Your task to perform on an android device: open app "Airtel Thanks" Image 0: 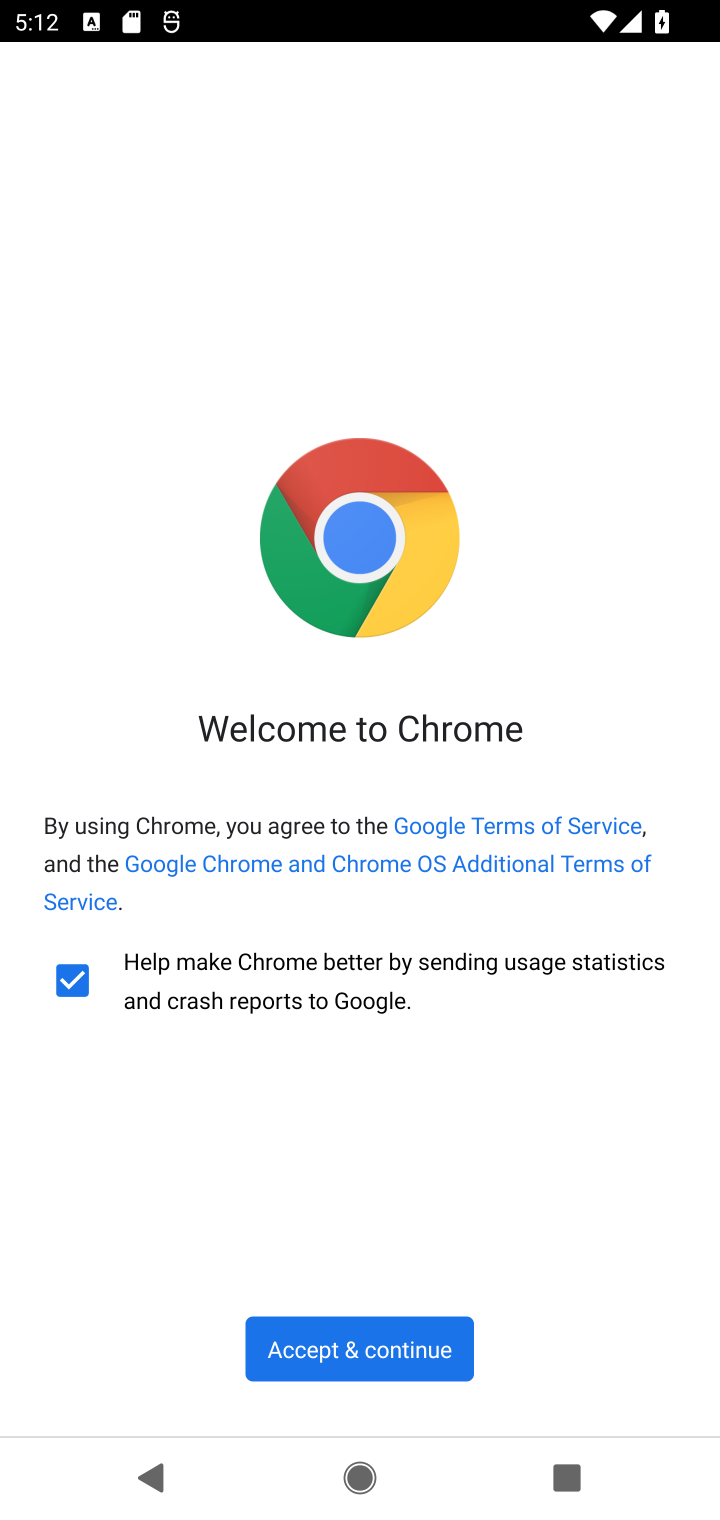
Step 0: press home button
Your task to perform on an android device: open app "Airtel Thanks" Image 1: 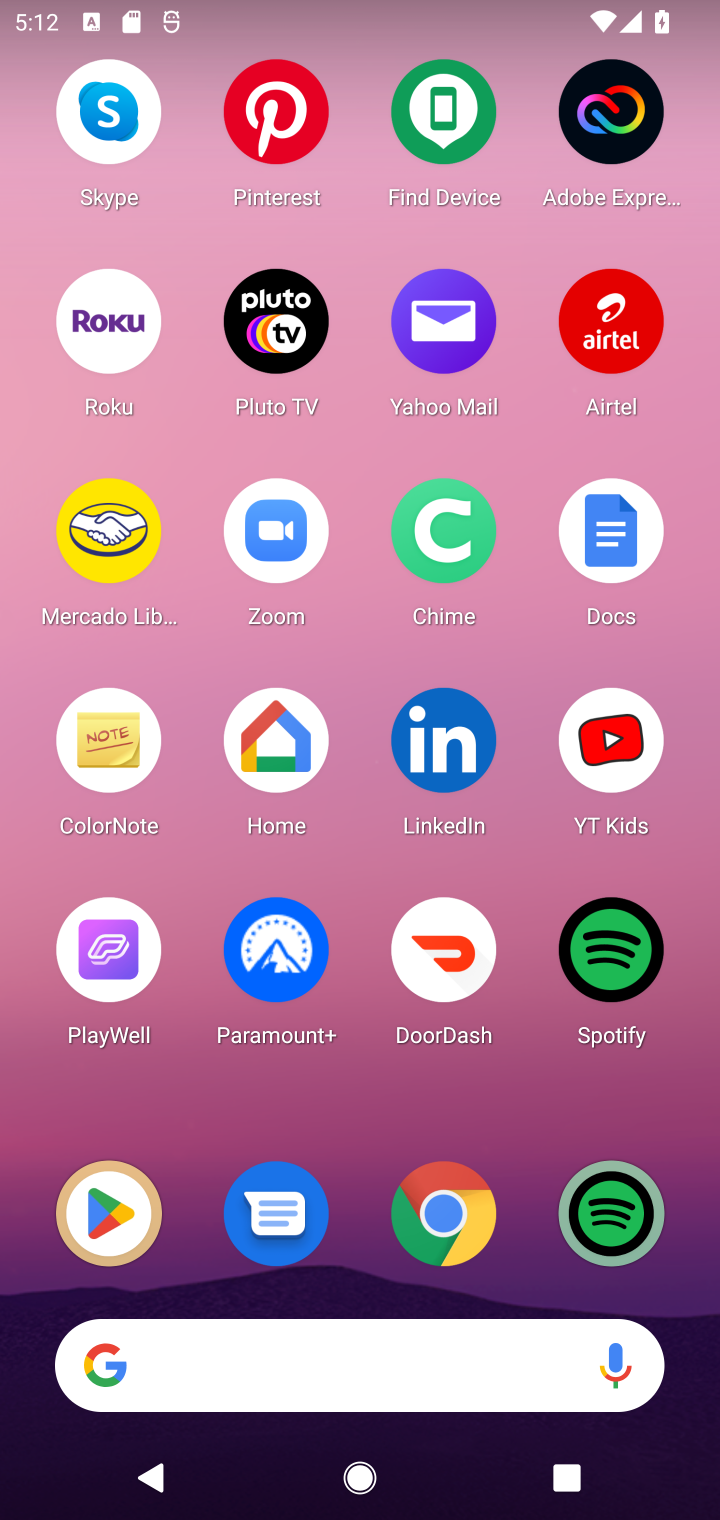
Step 1: drag from (561, 1104) to (519, 8)
Your task to perform on an android device: open app "Airtel Thanks" Image 2: 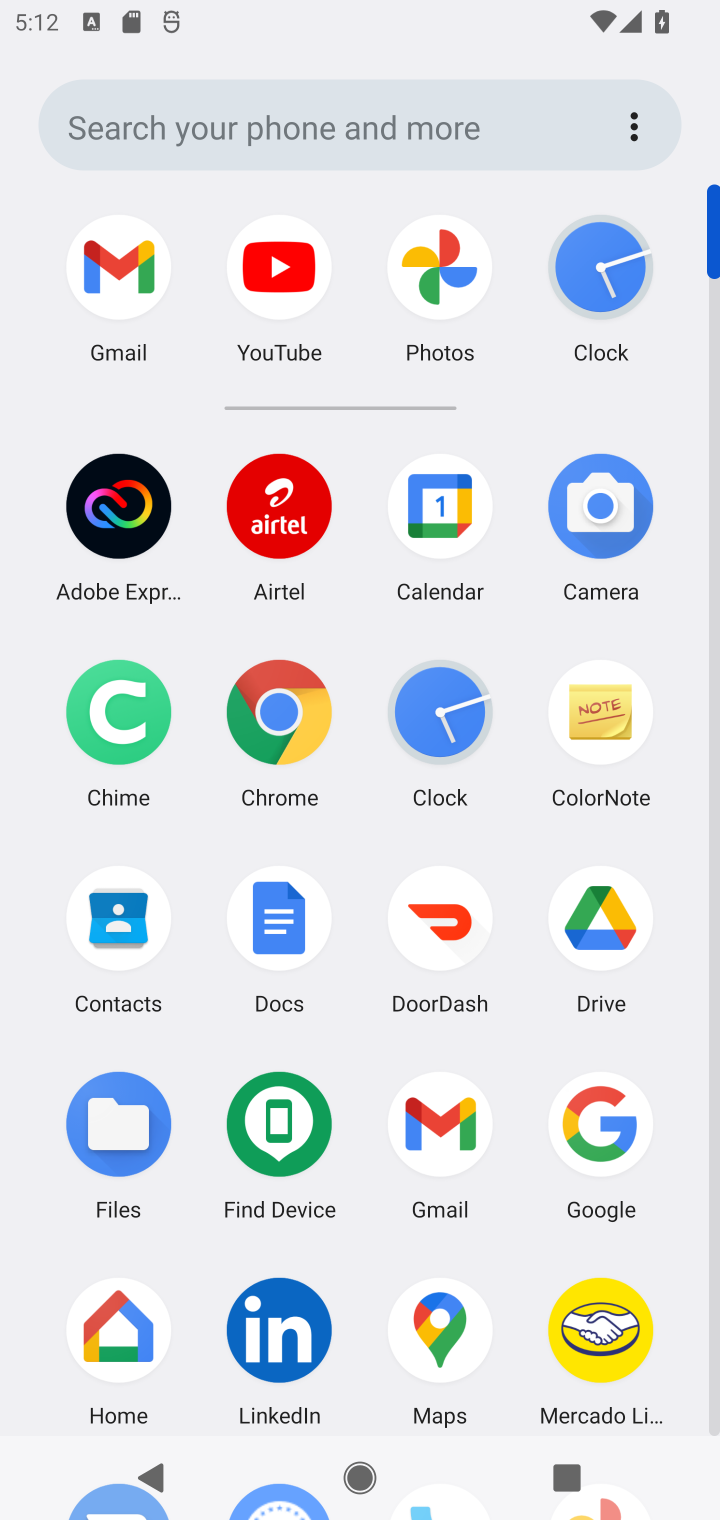
Step 2: drag from (357, 1235) to (412, 598)
Your task to perform on an android device: open app "Airtel Thanks" Image 3: 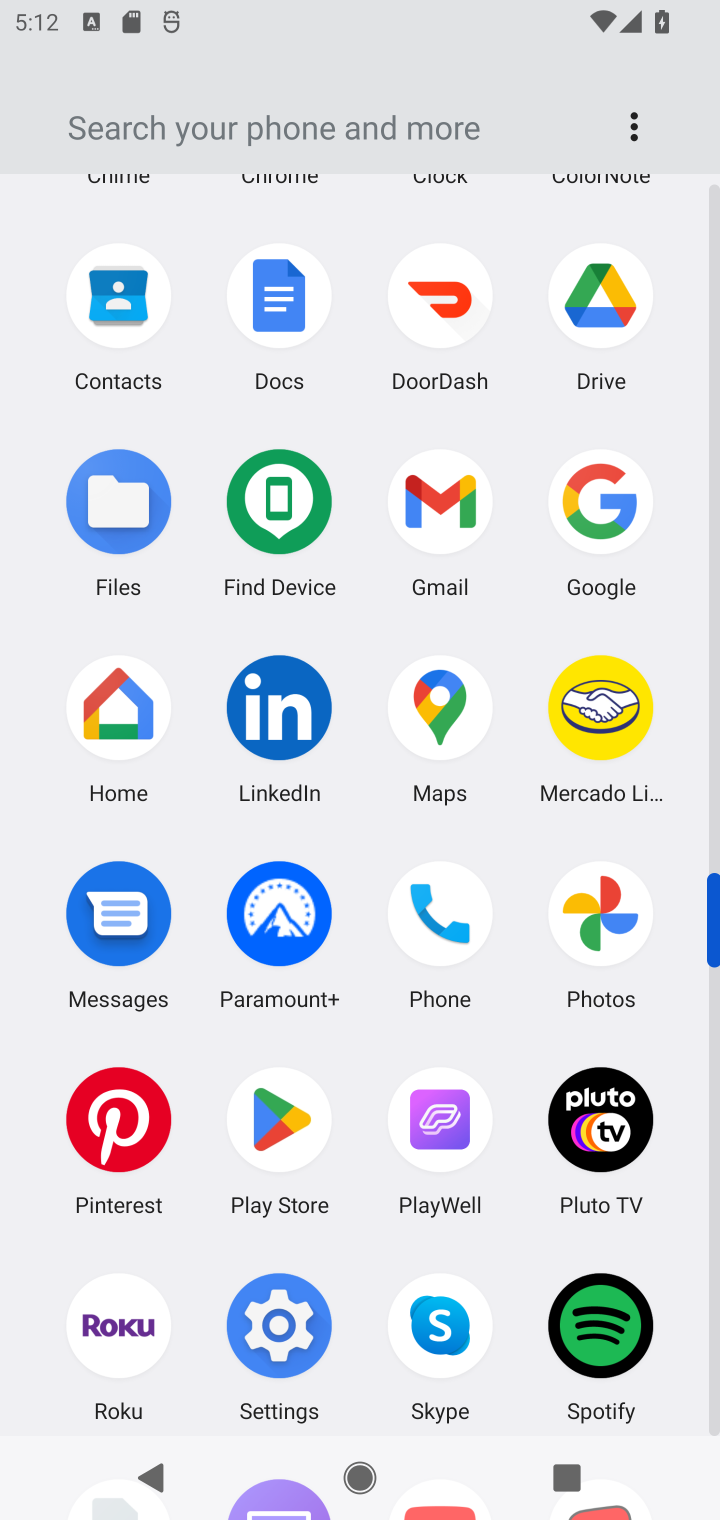
Step 3: click (312, 1163)
Your task to perform on an android device: open app "Airtel Thanks" Image 4: 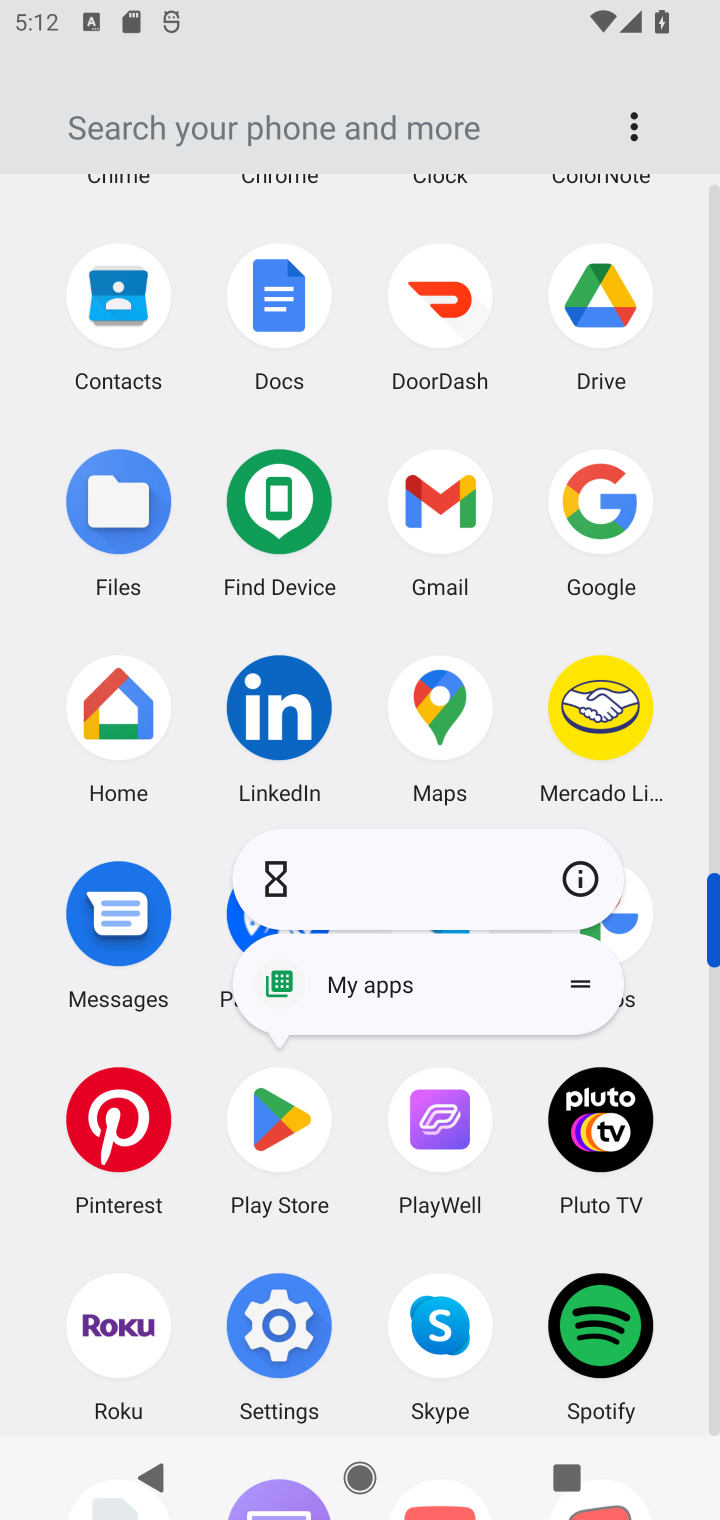
Step 4: click (277, 1114)
Your task to perform on an android device: open app "Airtel Thanks" Image 5: 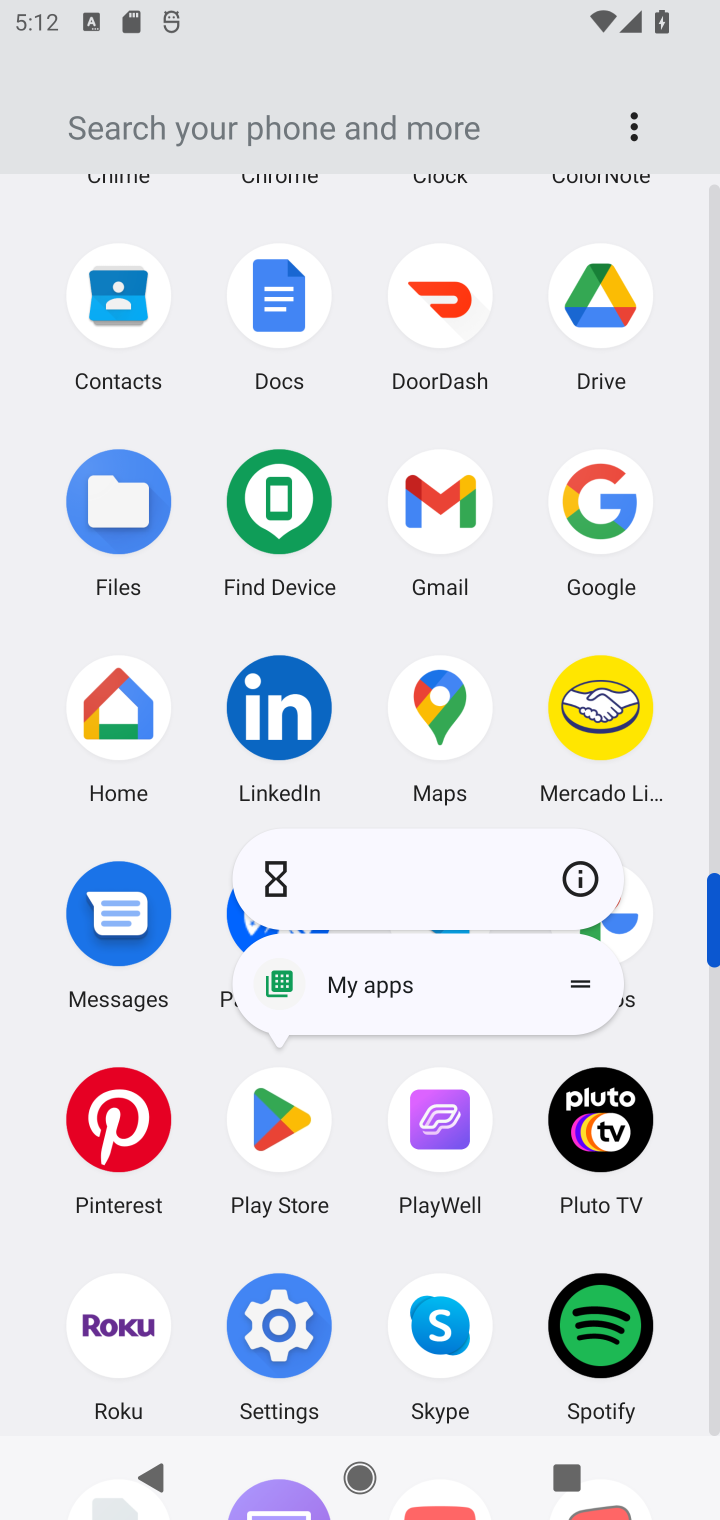
Step 5: click (277, 1128)
Your task to perform on an android device: open app "Airtel Thanks" Image 6: 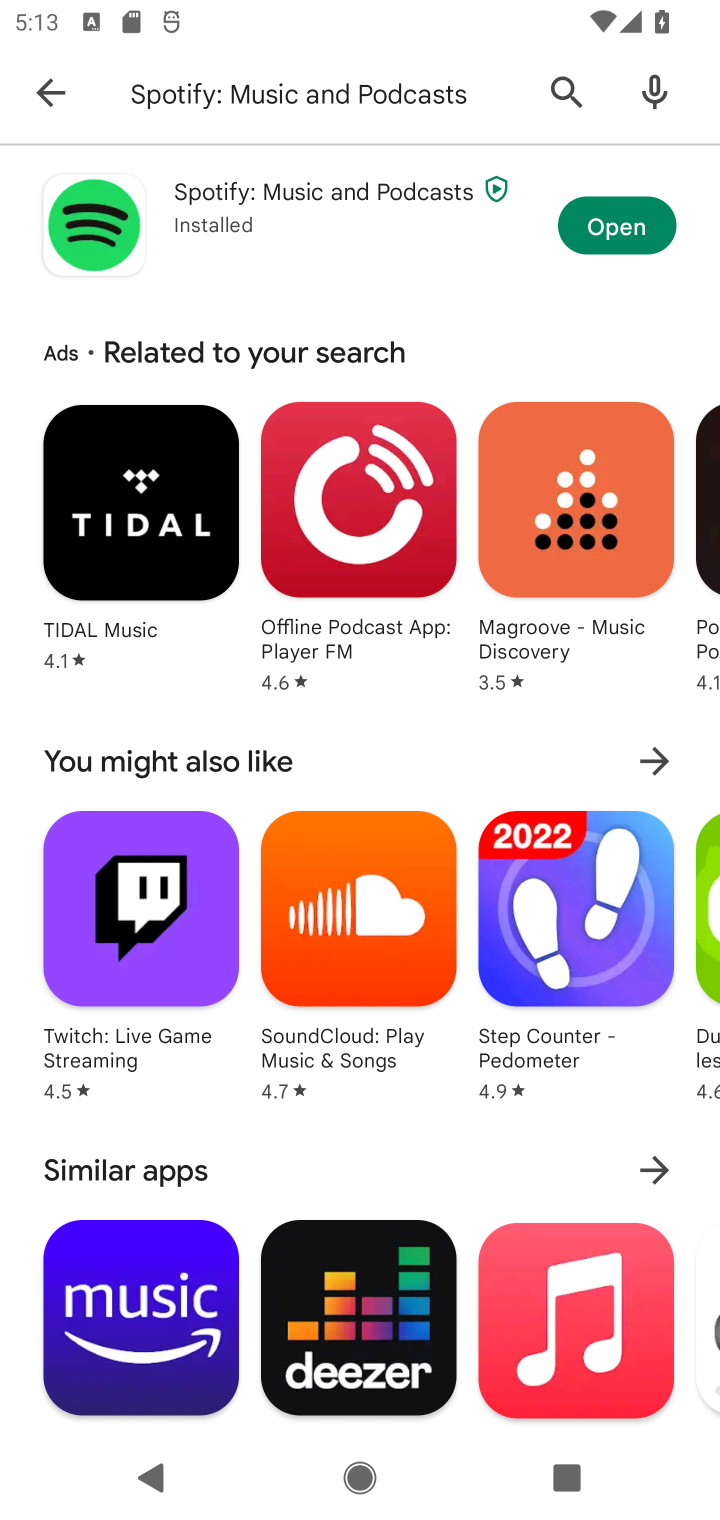
Step 6: click (453, 83)
Your task to perform on an android device: open app "Airtel Thanks" Image 7: 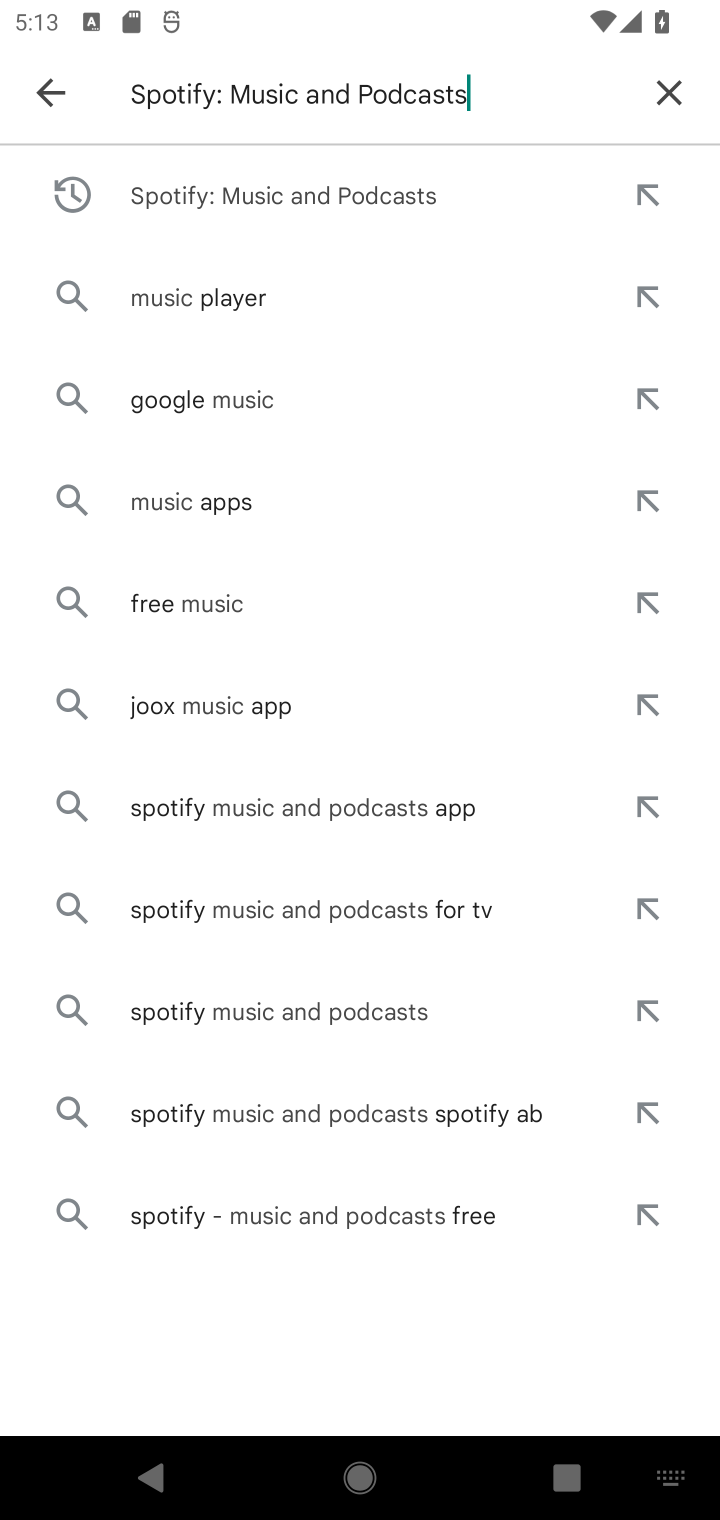
Step 7: click (689, 86)
Your task to perform on an android device: open app "Airtel Thanks" Image 8: 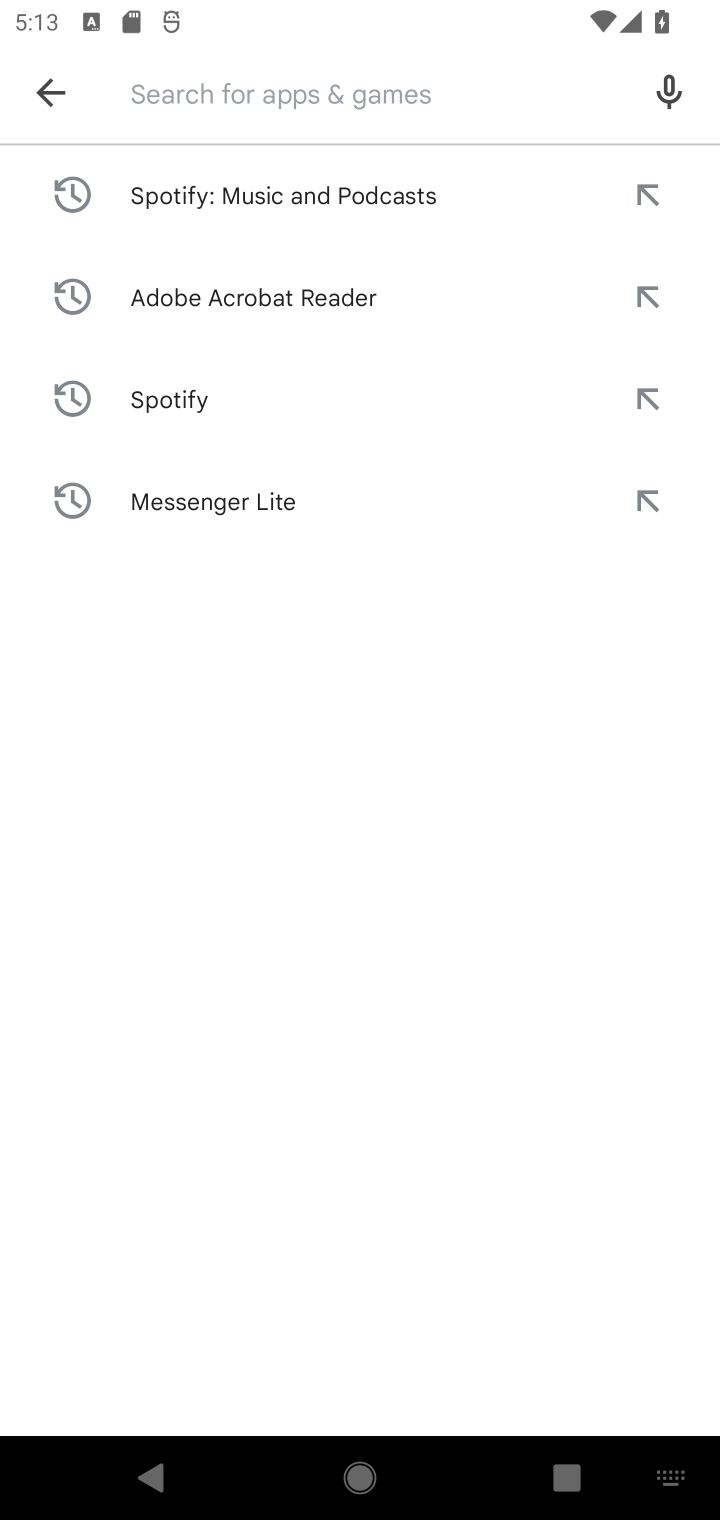
Step 8: type "Airtel Thanks"
Your task to perform on an android device: open app "Airtel Thanks" Image 9: 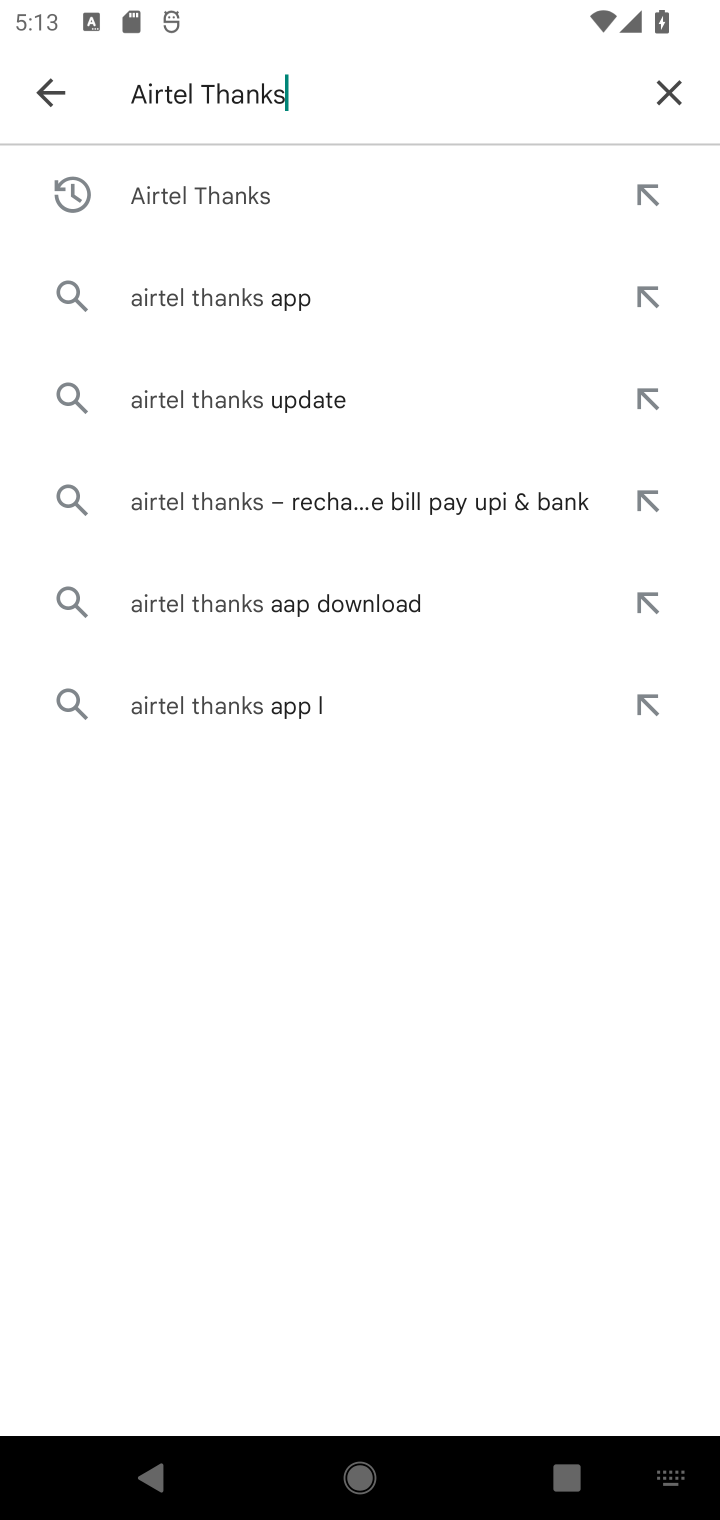
Step 9: press enter
Your task to perform on an android device: open app "Airtel Thanks" Image 10: 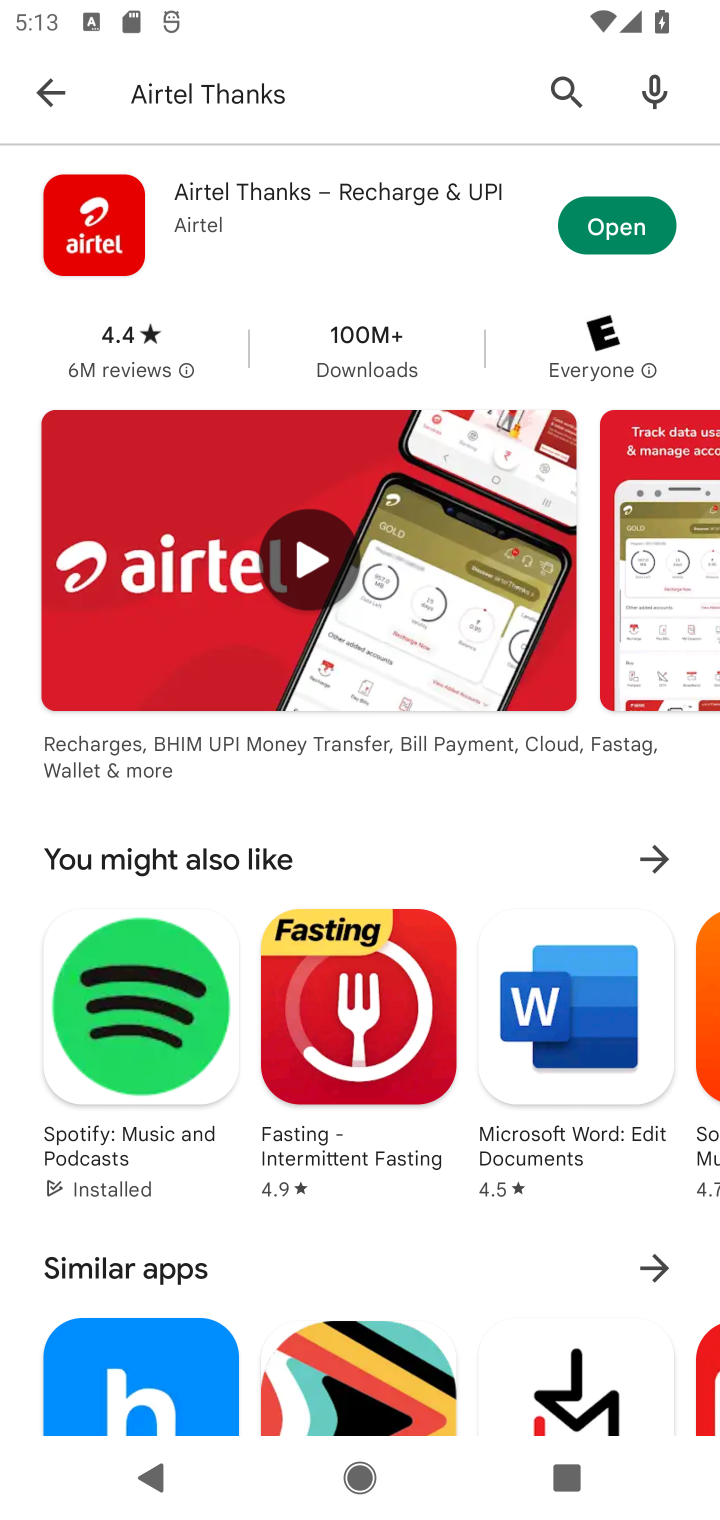
Step 10: click (656, 213)
Your task to perform on an android device: open app "Airtel Thanks" Image 11: 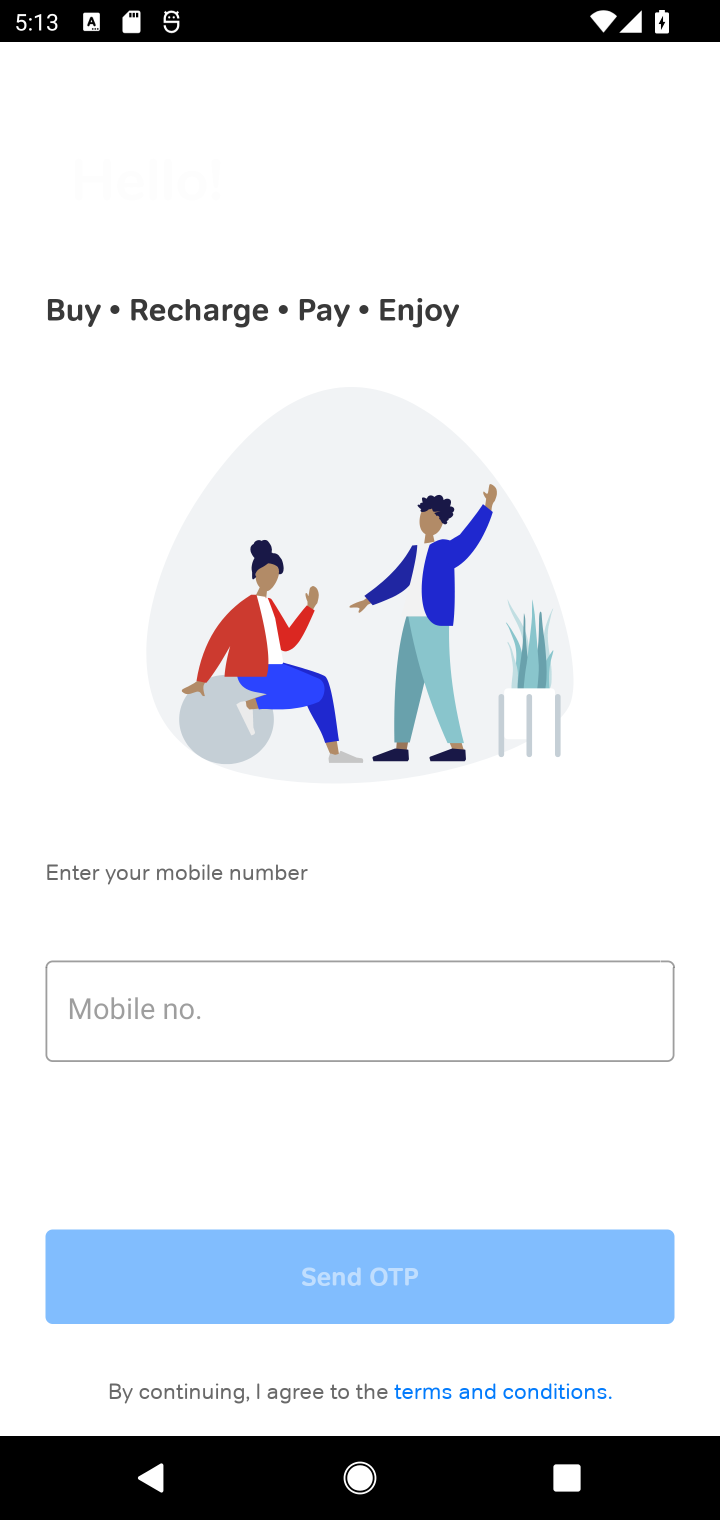
Step 11: task complete